Your task to perform on an android device: open chrome privacy settings Image 0: 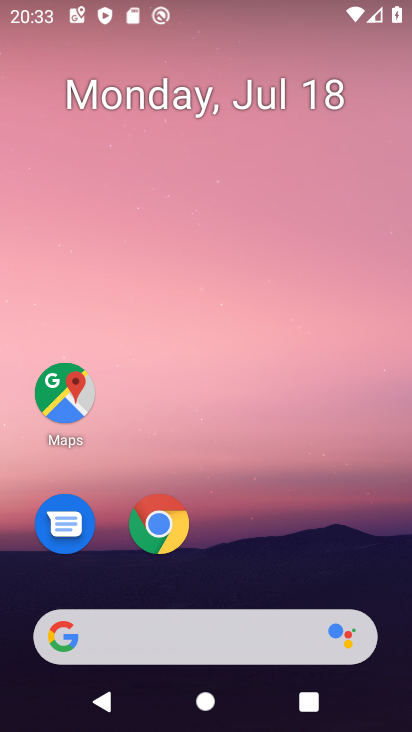
Step 0: click (166, 510)
Your task to perform on an android device: open chrome privacy settings Image 1: 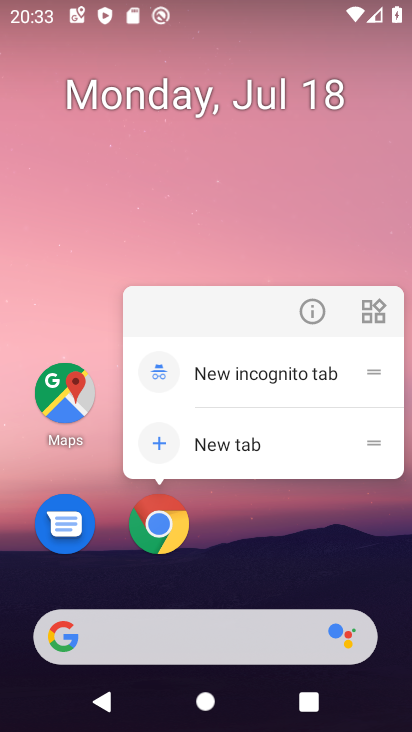
Step 1: click (166, 510)
Your task to perform on an android device: open chrome privacy settings Image 2: 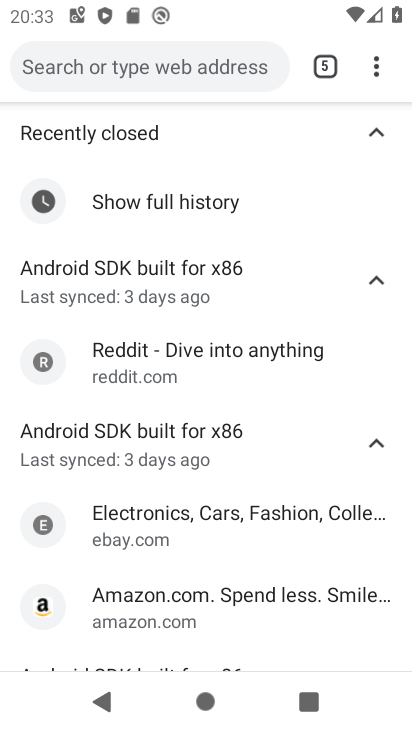
Step 2: click (372, 67)
Your task to perform on an android device: open chrome privacy settings Image 3: 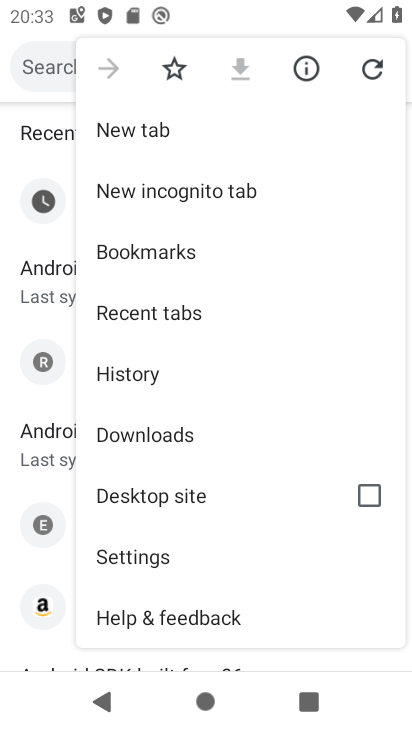
Step 3: click (148, 553)
Your task to perform on an android device: open chrome privacy settings Image 4: 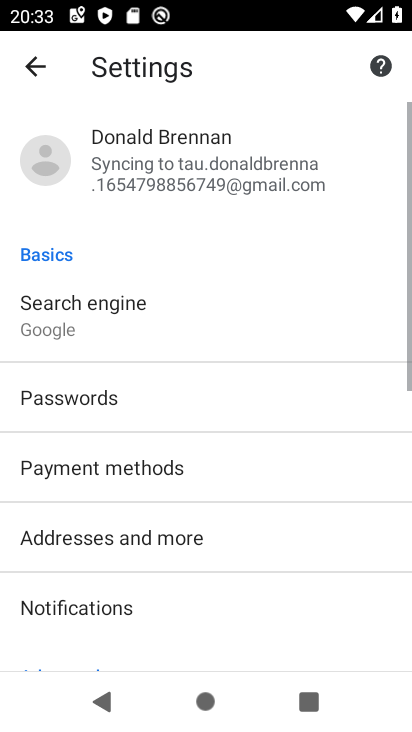
Step 4: drag from (231, 493) to (275, 167)
Your task to perform on an android device: open chrome privacy settings Image 5: 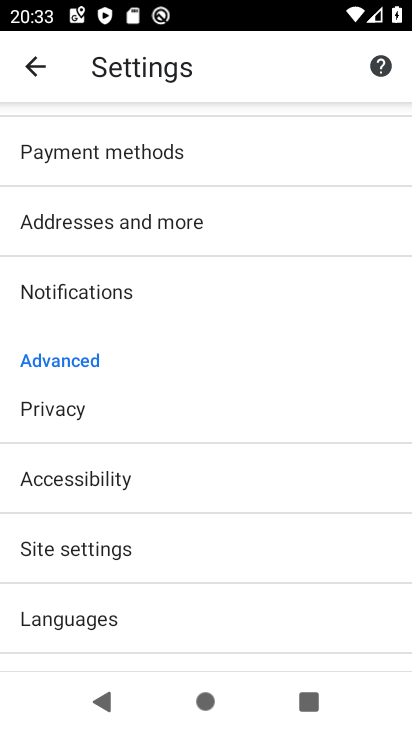
Step 5: click (77, 409)
Your task to perform on an android device: open chrome privacy settings Image 6: 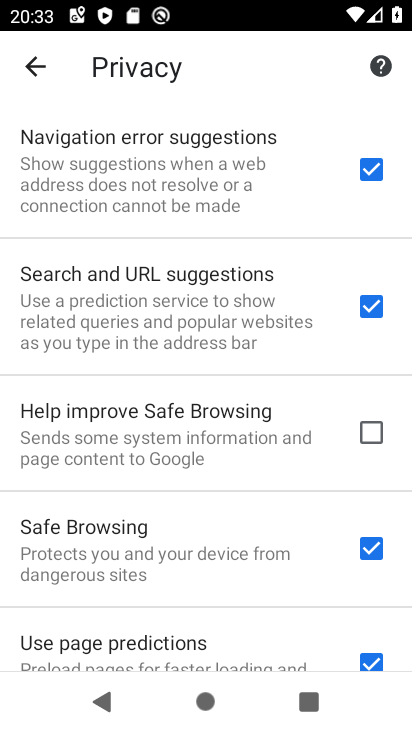
Step 6: task complete